Your task to perform on an android device: Go to wifi settings Image 0: 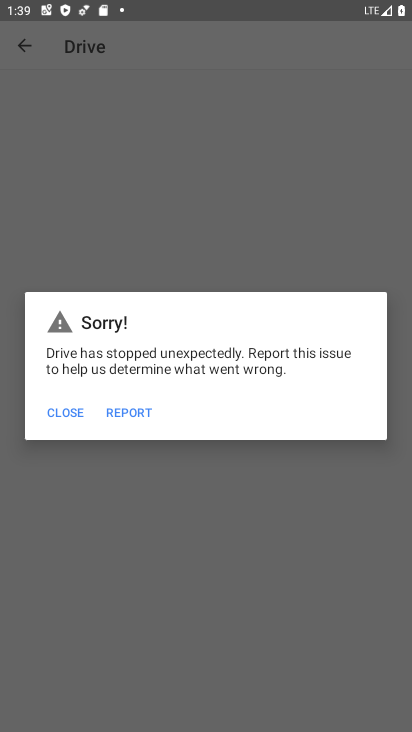
Step 0: press home button
Your task to perform on an android device: Go to wifi settings Image 1: 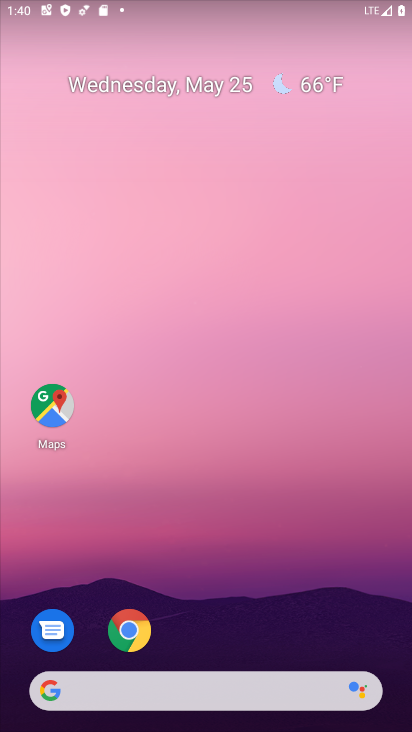
Step 1: drag from (189, 660) to (206, 156)
Your task to perform on an android device: Go to wifi settings Image 2: 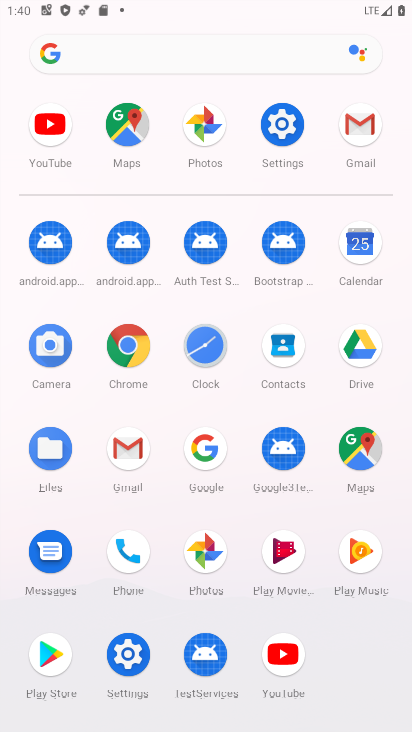
Step 2: click (281, 121)
Your task to perform on an android device: Go to wifi settings Image 3: 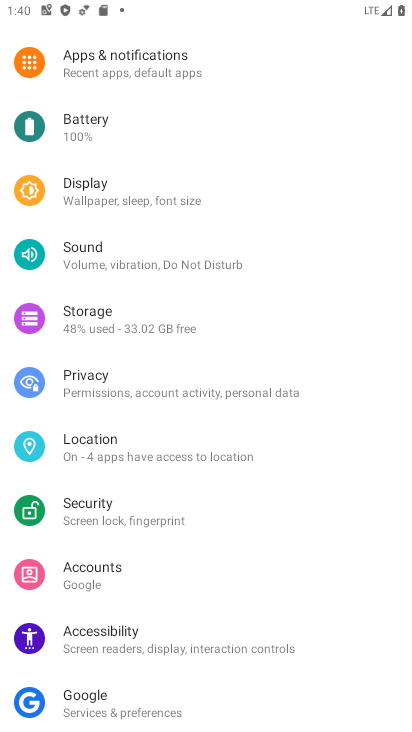
Step 3: drag from (151, 111) to (56, 640)
Your task to perform on an android device: Go to wifi settings Image 4: 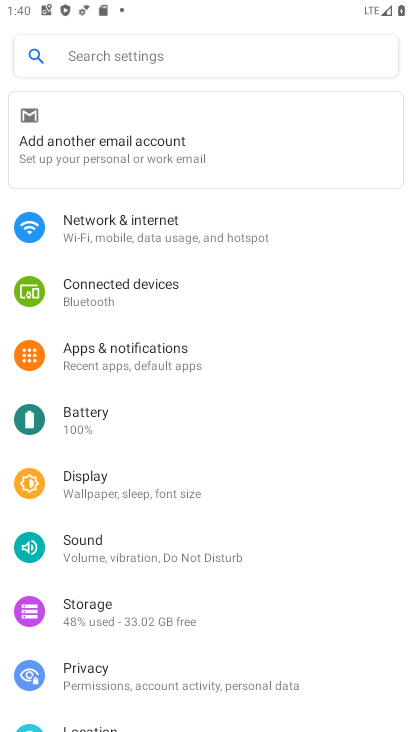
Step 4: click (148, 226)
Your task to perform on an android device: Go to wifi settings Image 5: 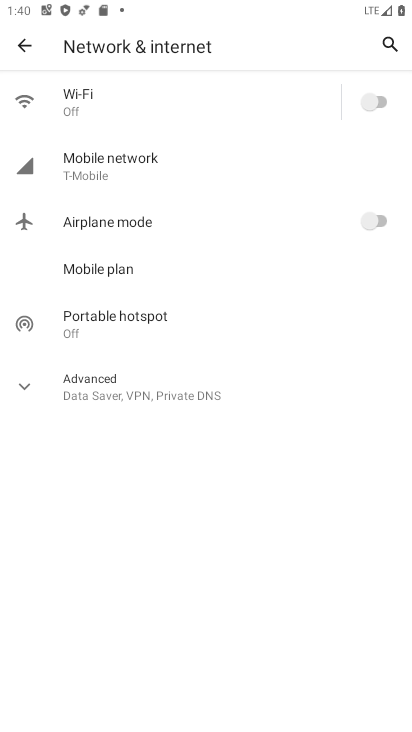
Step 5: click (29, 381)
Your task to perform on an android device: Go to wifi settings Image 6: 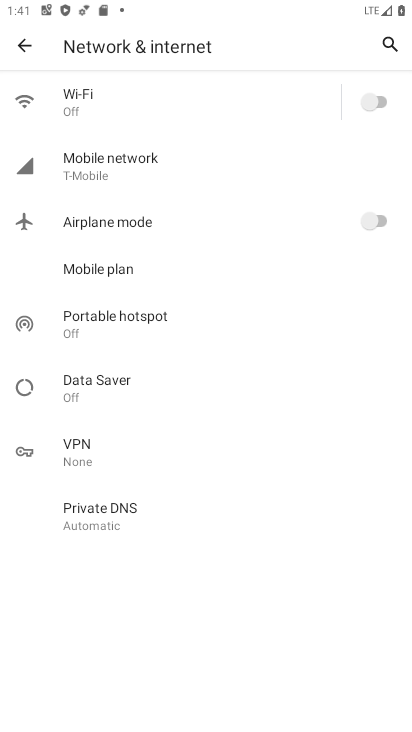
Step 6: click (99, 101)
Your task to perform on an android device: Go to wifi settings Image 7: 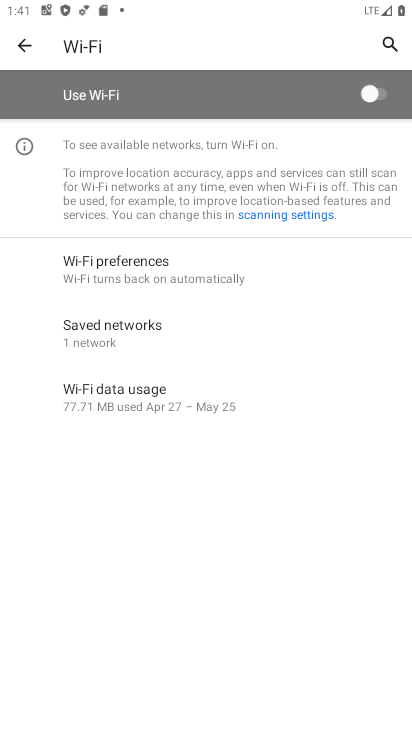
Step 7: click (370, 93)
Your task to perform on an android device: Go to wifi settings Image 8: 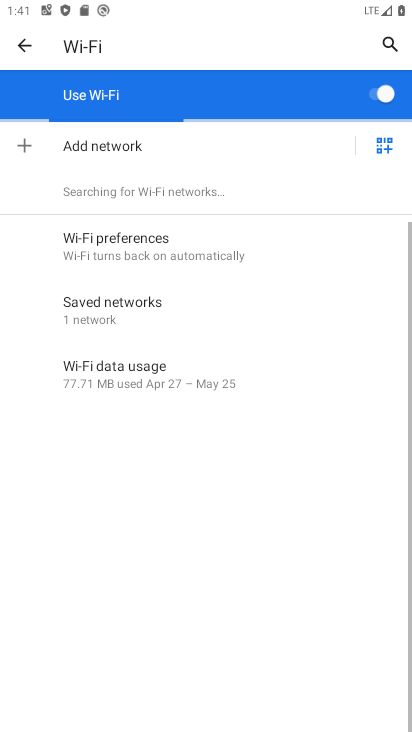
Step 8: task complete